Your task to perform on an android device: Clear the cart on walmart.com. Search for razer naga on walmart.com, select the first entry, and add it to the cart. Image 0: 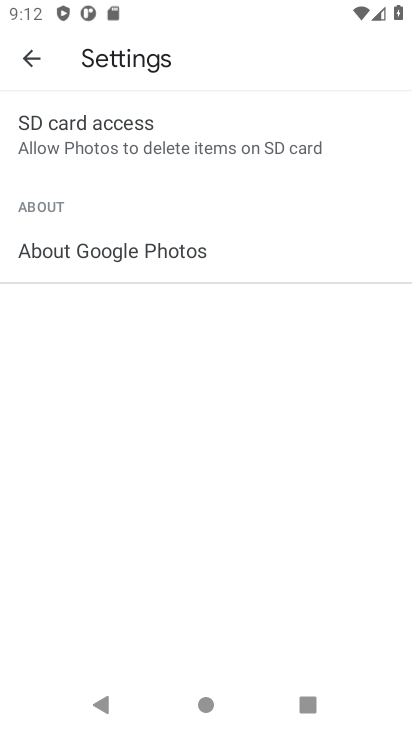
Step 0: press home button
Your task to perform on an android device: Clear the cart on walmart.com. Search for razer naga on walmart.com, select the first entry, and add it to the cart. Image 1: 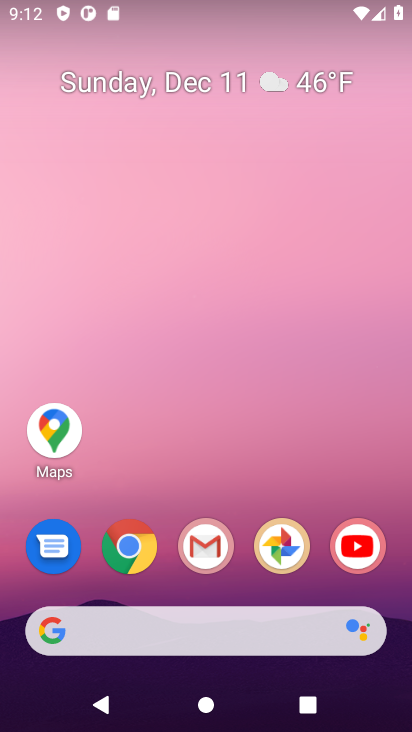
Step 1: click (127, 545)
Your task to perform on an android device: Clear the cart on walmart.com. Search for razer naga on walmart.com, select the first entry, and add it to the cart. Image 2: 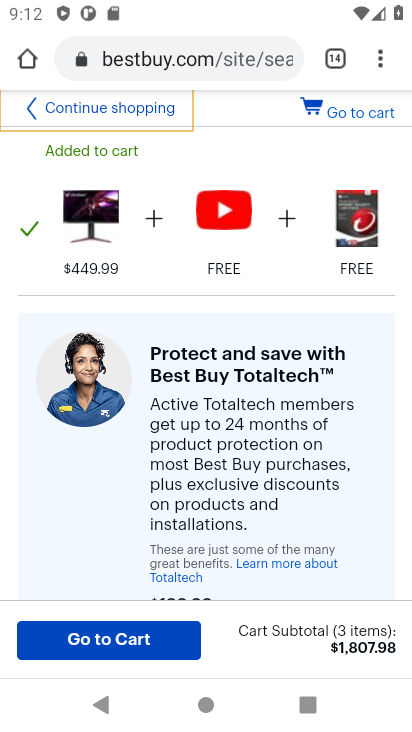
Step 2: click (168, 64)
Your task to perform on an android device: Clear the cart on walmart.com. Search for razer naga on walmart.com, select the first entry, and add it to the cart. Image 3: 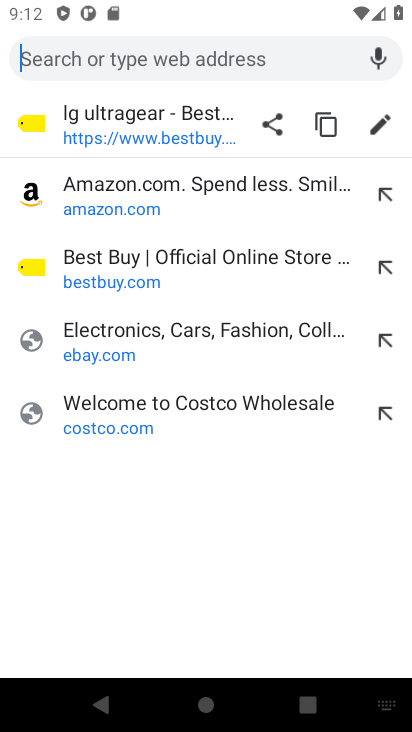
Step 3: type "walmart.com"
Your task to perform on an android device: Clear the cart on walmart.com. Search for razer naga on walmart.com, select the first entry, and add it to the cart. Image 4: 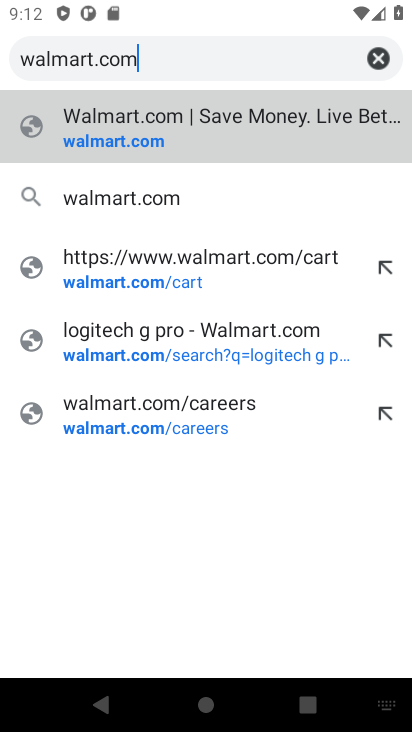
Step 4: click (126, 140)
Your task to perform on an android device: Clear the cart on walmart.com. Search for razer naga on walmart.com, select the first entry, and add it to the cart. Image 5: 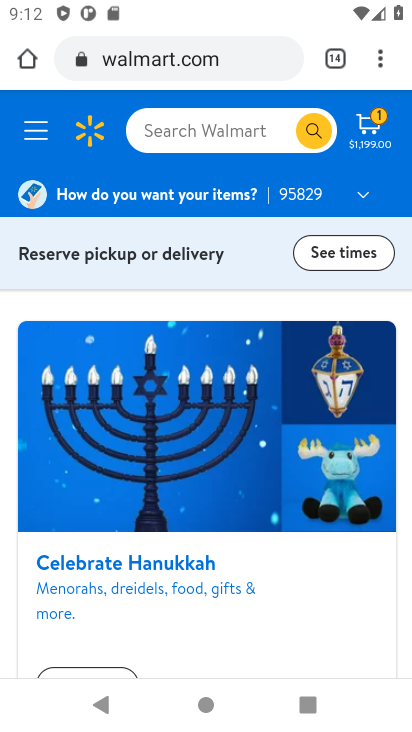
Step 5: click (373, 131)
Your task to perform on an android device: Clear the cart on walmart.com. Search for razer naga on walmart.com, select the first entry, and add it to the cart. Image 6: 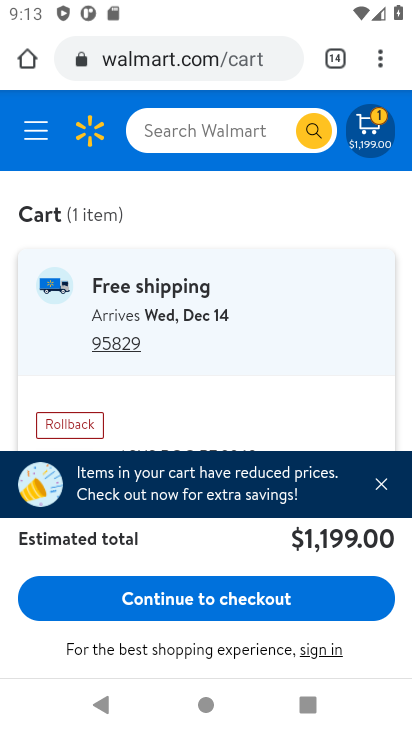
Step 6: drag from (198, 506) to (213, 261)
Your task to perform on an android device: Clear the cart on walmart.com. Search for razer naga on walmart.com, select the first entry, and add it to the cart. Image 7: 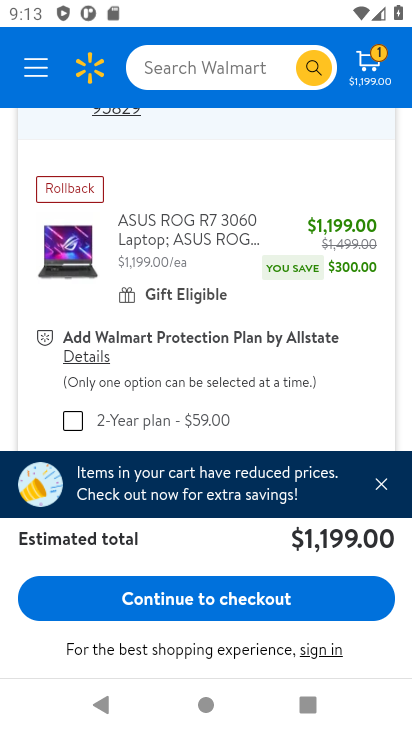
Step 7: drag from (149, 325) to (166, 154)
Your task to perform on an android device: Clear the cart on walmart.com. Search for razer naga on walmart.com, select the first entry, and add it to the cart. Image 8: 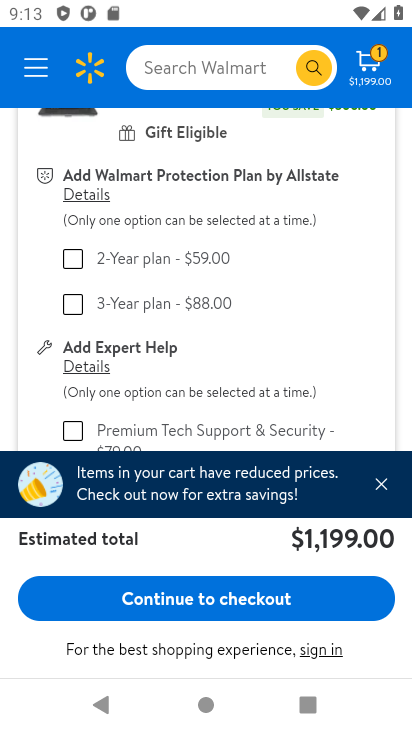
Step 8: drag from (126, 372) to (143, 108)
Your task to perform on an android device: Clear the cart on walmart.com. Search for razer naga on walmart.com, select the first entry, and add it to the cart. Image 9: 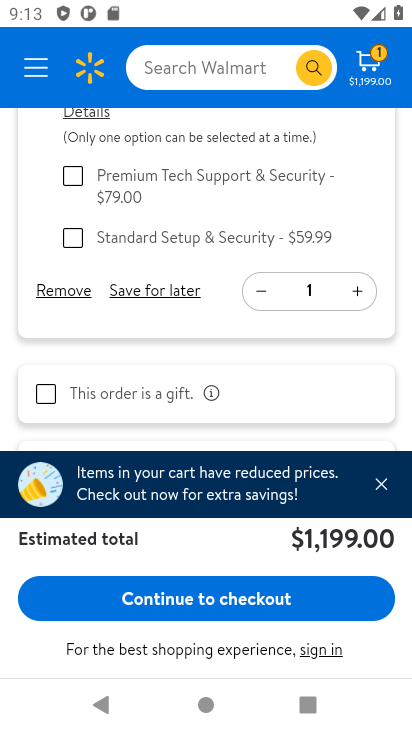
Step 9: click (53, 294)
Your task to perform on an android device: Clear the cart on walmart.com. Search for razer naga on walmart.com, select the first entry, and add it to the cart. Image 10: 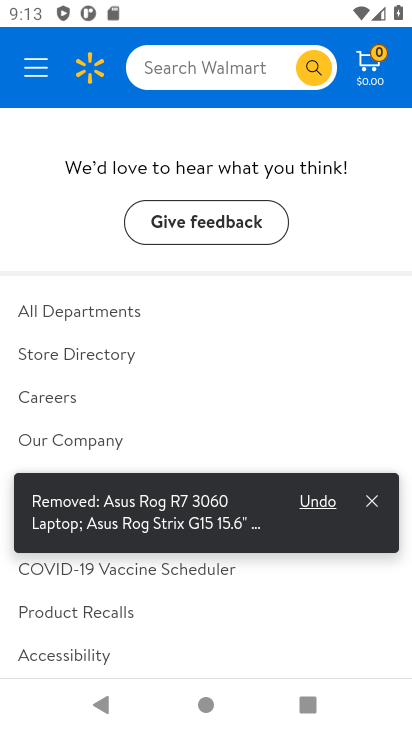
Step 10: click (377, 500)
Your task to perform on an android device: Clear the cart on walmart.com. Search for razer naga on walmart.com, select the first entry, and add it to the cart. Image 11: 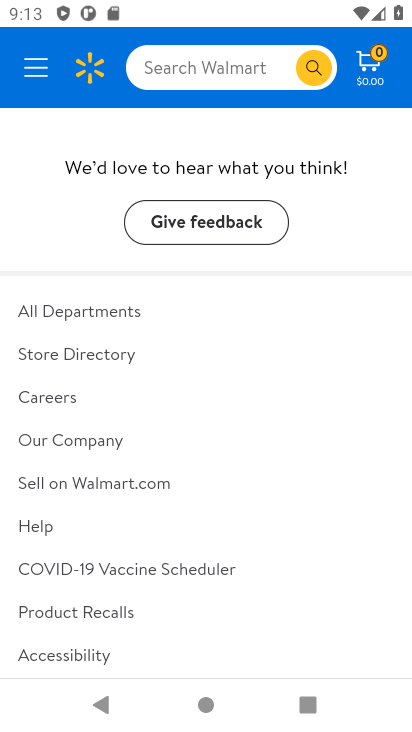
Step 11: drag from (244, 258) to (191, 537)
Your task to perform on an android device: Clear the cart on walmart.com. Search for razer naga on walmart.com, select the first entry, and add it to the cart. Image 12: 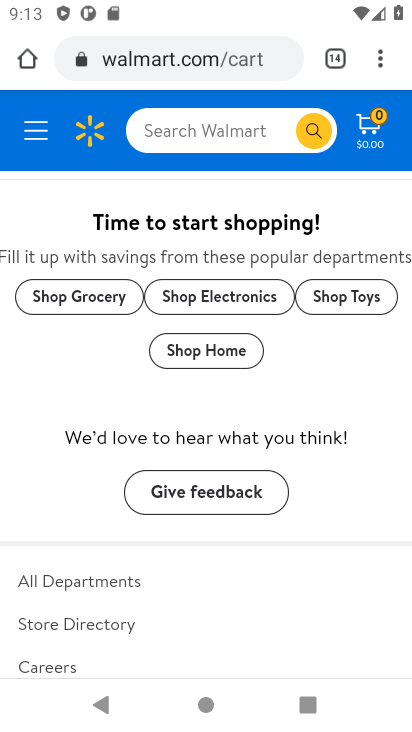
Step 12: drag from (231, 244) to (217, 617)
Your task to perform on an android device: Clear the cart on walmart.com. Search for razer naga on walmart.com, select the first entry, and add it to the cart. Image 13: 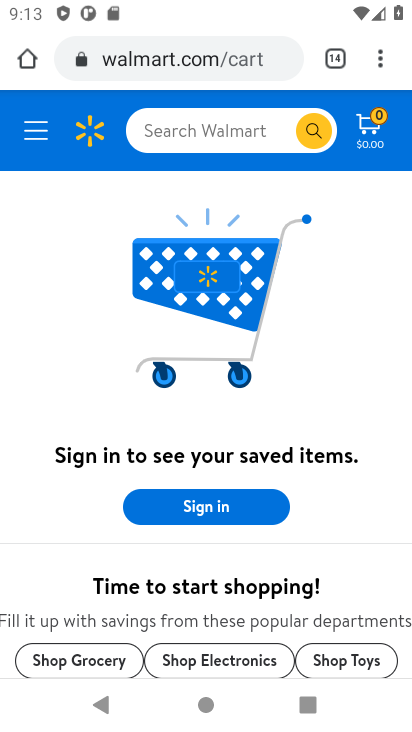
Step 13: drag from (219, 328) to (216, 659)
Your task to perform on an android device: Clear the cart on walmart.com. Search for razer naga on walmart.com, select the first entry, and add it to the cart. Image 14: 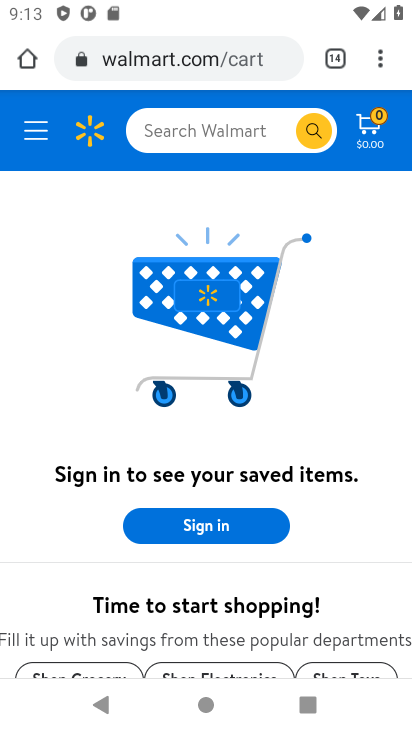
Step 14: click (203, 136)
Your task to perform on an android device: Clear the cart on walmart.com. Search for razer naga on walmart.com, select the first entry, and add it to the cart. Image 15: 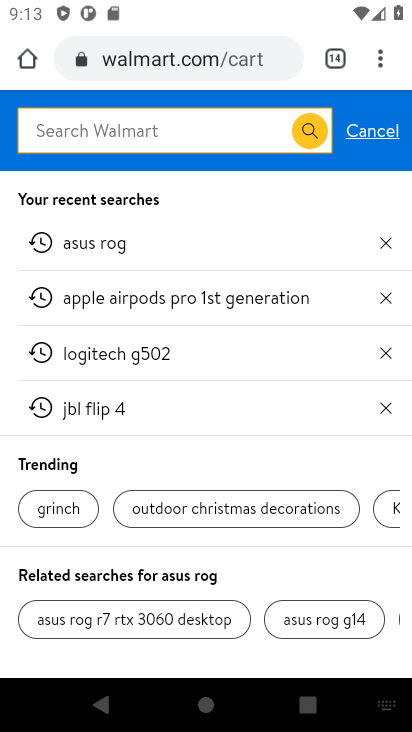
Step 15: type "razer naga"
Your task to perform on an android device: Clear the cart on walmart.com. Search for razer naga on walmart.com, select the first entry, and add it to the cart. Image 16: 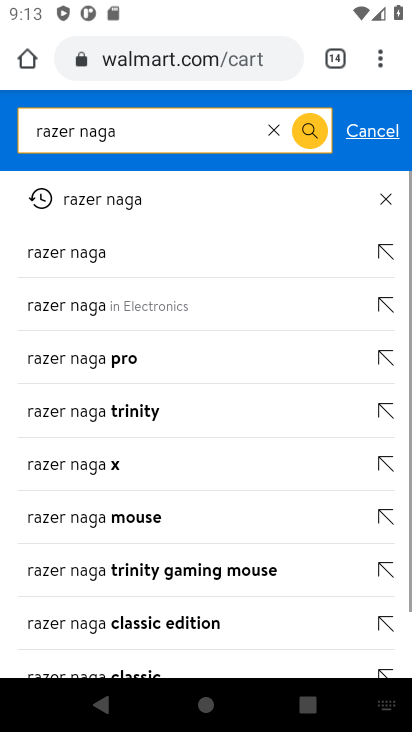
Step 16: click (120, 209)
Your task to perform on an android device: Clear the cart on walmart.com. Search for razer naga on walmart.com, select the first entry, and add it to the cart. Image 17: 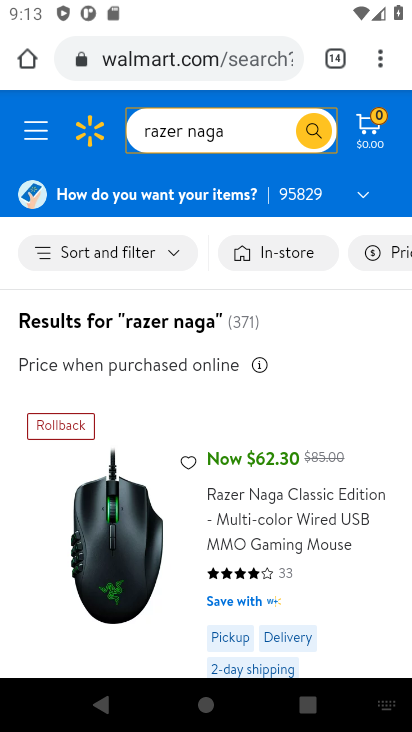
Step 17: drag from (175, 509) to (200, 287)
Your task to perform on an android device: Clear the cart on walmart.com. Search for razer naga on walmart.com, select the first entry, and add it to the cart. Image 18: 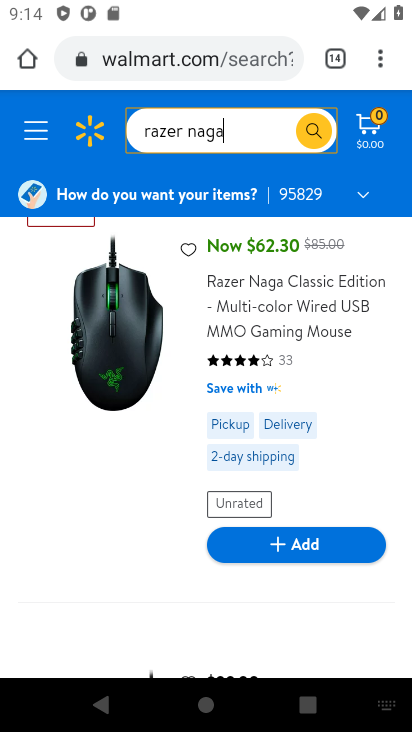
Step 18: click (298, 551)
Your task to perform on an android device: Clear the cart on walmart.com. Search for razer naga on walmart.com, select the first entry, and add it to the cart. Image 19: 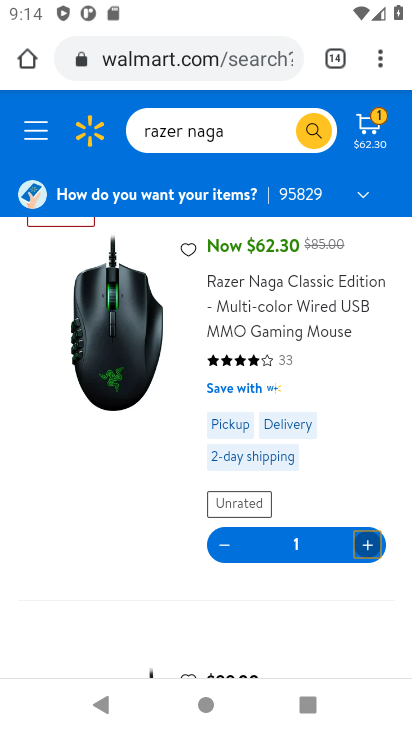
Step 19: task complete